Your task to perform on an android device: set default search engine in the chrome app Image 0: 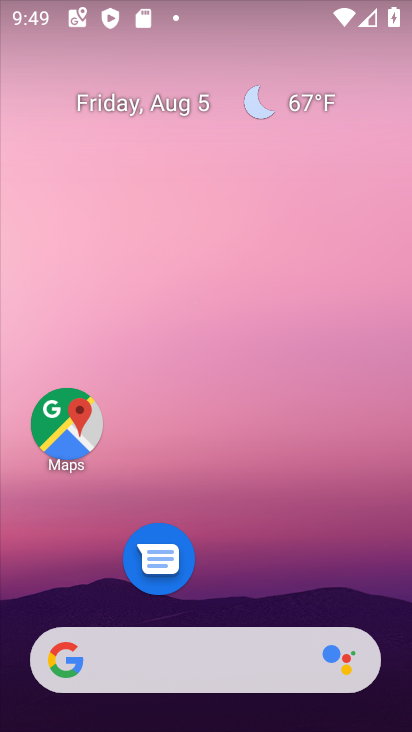
Step 0: drag from (218, 242) to (218, 152)
Your task to perform on an android device: set default search engine in the chrome app Image 1: 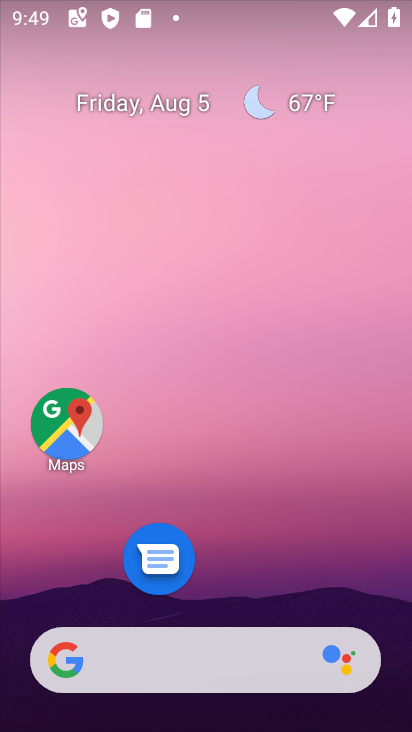
Step 1: drag from (169, 607) to (194, 183)
Your task to perform on an android device: set default search engine in the chrome app Image 2: 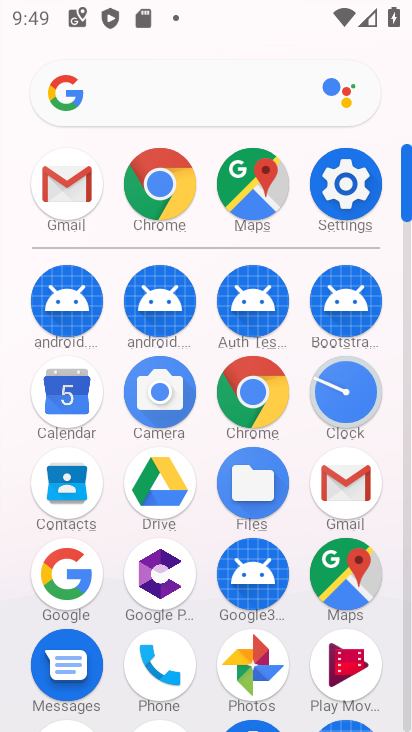
Step 2: click (256, 399)
Your task to perform on an android device: set default search engine in the chrome app Image 3: 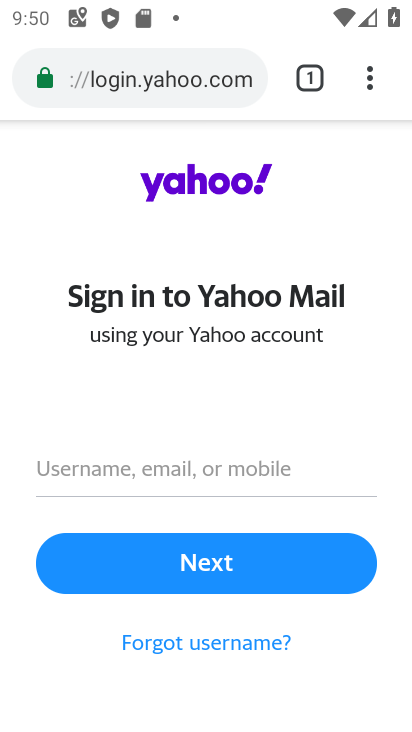
Step 3: click (360, 98)
Your task to perform on an android device: set default search engine in the chrome app Image 4: 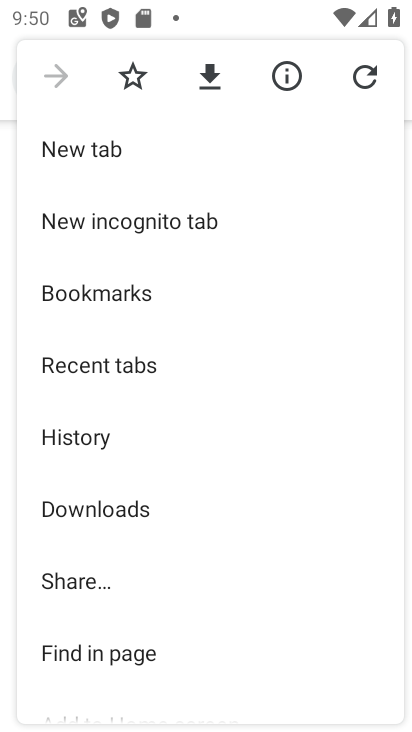
Step 4: drag from (123, 587) to (84, 268)
Your task to perform on an android device: set default search engine in the chrome app Image 5: 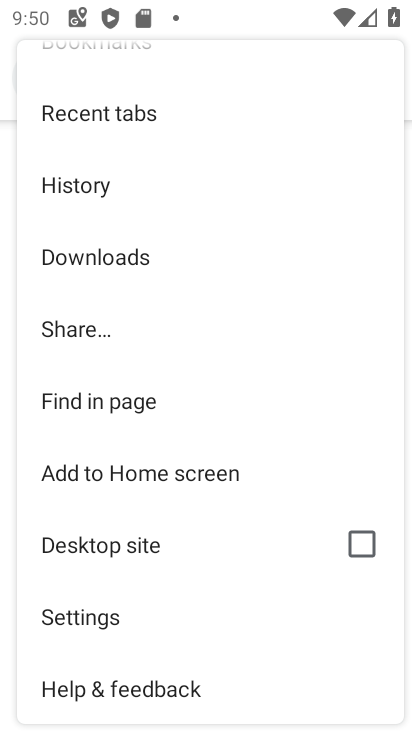
Step 5: click (148, 631)
Your task to perform on an android device: set default search engine in the chrome app Image 6: 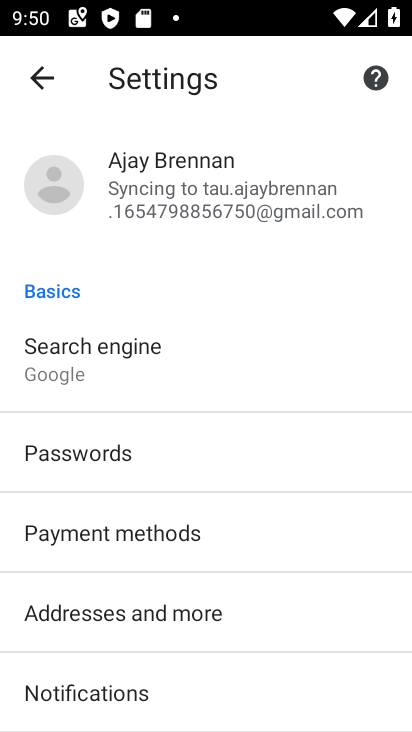
Step 6: drag from (261, 591) to (214, 317)
Your task to perform on an android device: set default search engine in the chrome app Image 7: 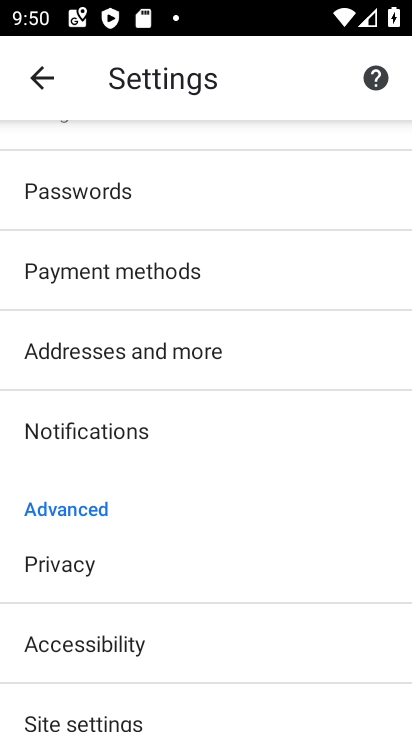
Step 7: drag from (189, 355) to (143, 729)
Your task to perform on an android device: set default search engine in the chrome app Image 8: 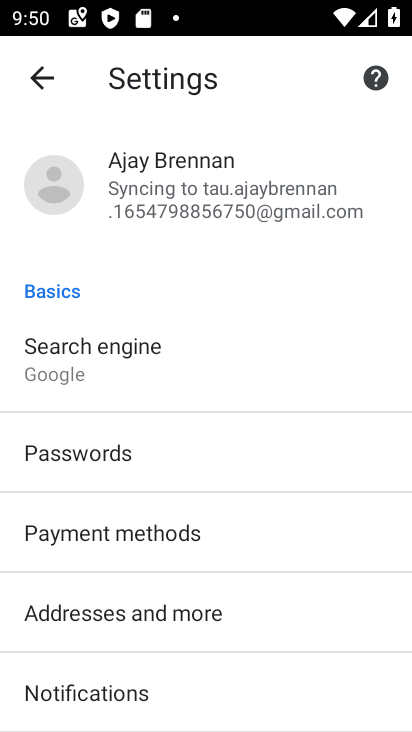
Step 8: click (103, 359)
Your task to perform on an android device: set default search engine in the chrome app Image 9: 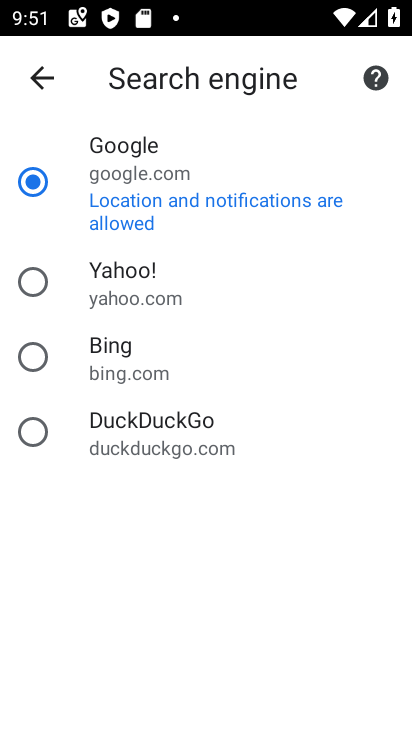
Step 9: task complete